Your task to perform on an android device: stop showing notifications on the lock screen Image 0: 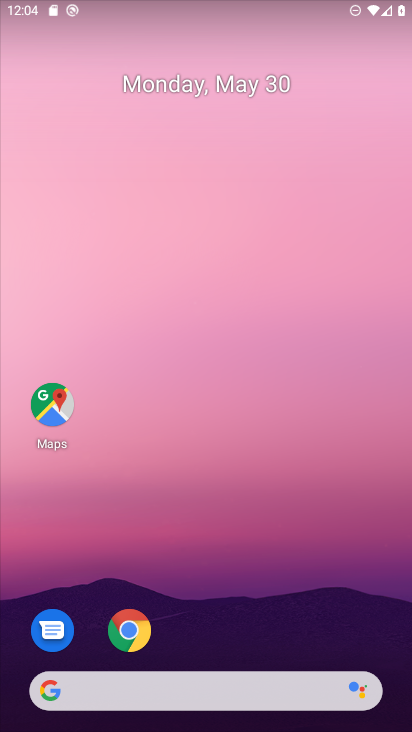
Step 0: drag from (215, 534) to (185, 324)
Your task to perform on an android device: stop showing notifications on the lock screen Image 1: 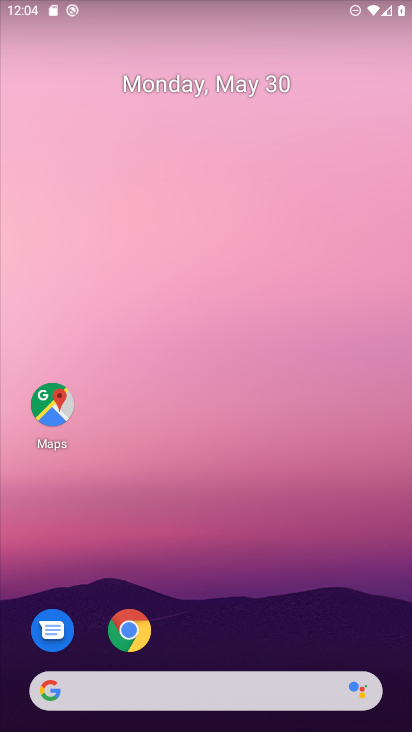
Step 1: drag from (276, 496) to (233, 36)
Your task to perform on an android device: stop showing notifications on the lock screen Image 2: 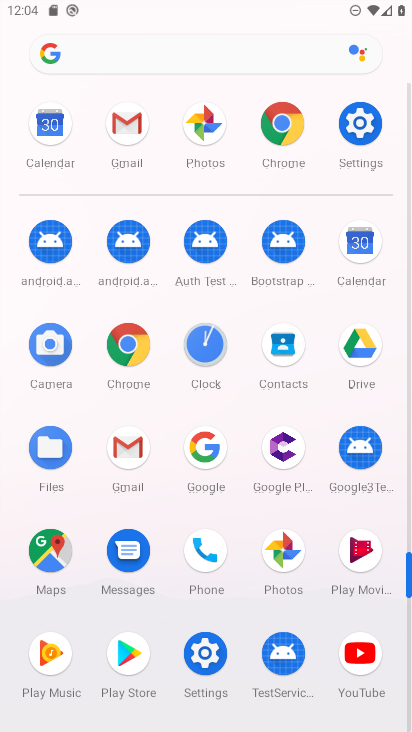
Step 2: click (369, 116)
Your task to perform on an android device: stop showing notifications on the lock screen Image 3: 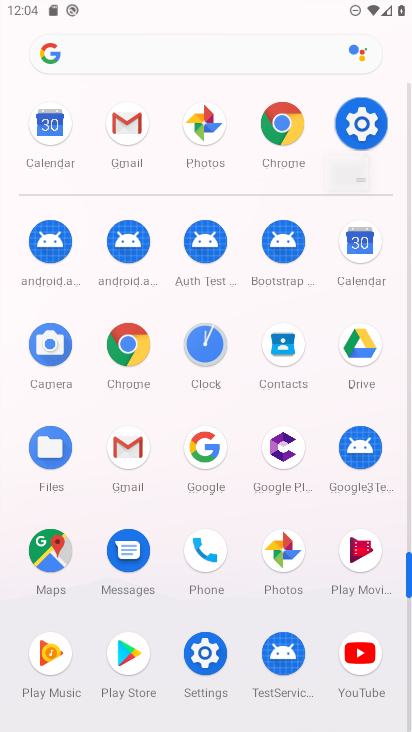
Step 3: click (336, 126)
Your task to perform on an android device: stop showing notifications on the lock screen Image 4: 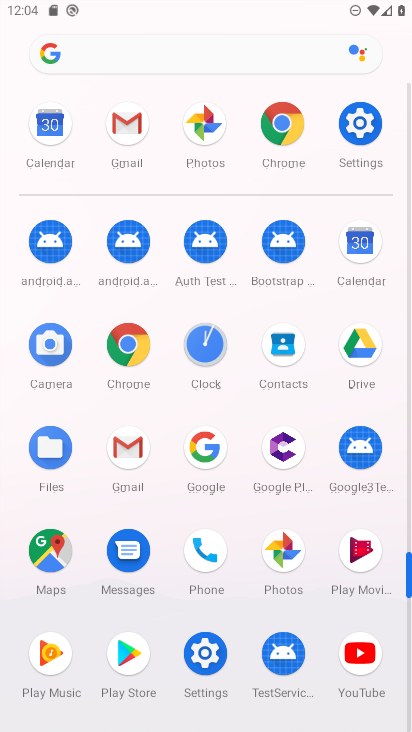
Step 4: click (357, 117)
Your task to perform on an android device: stop showing notifications on the lock screen Image 5: 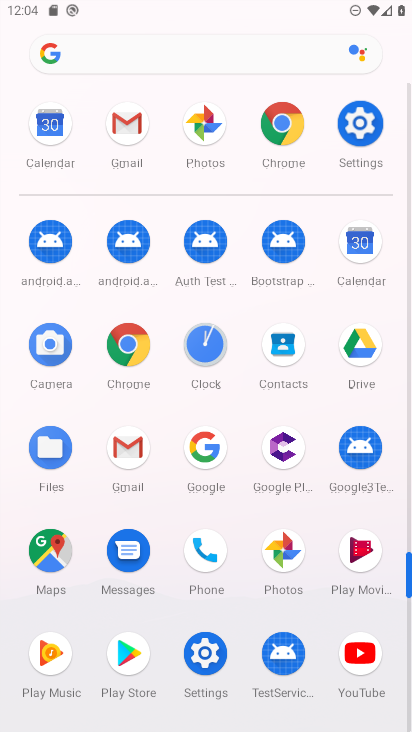
Step 5: click (359, 117)
Your task to perform on an android device: stop showing notifications on the lock screen Image 6: 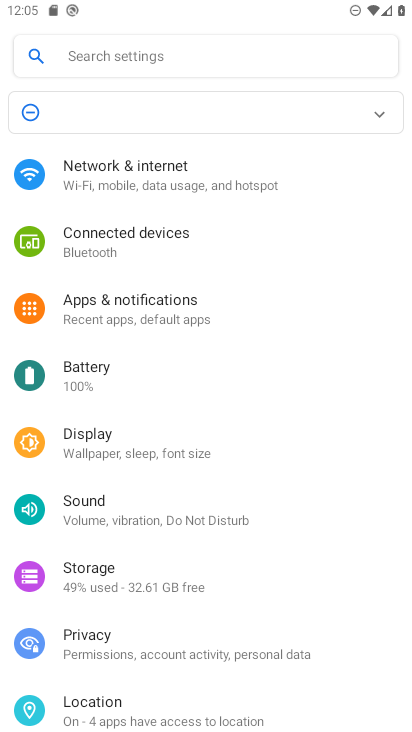
Step 6: click (366, 127)
Your task to perform on an android device: stop showing notifications on the lock screen Image 7: 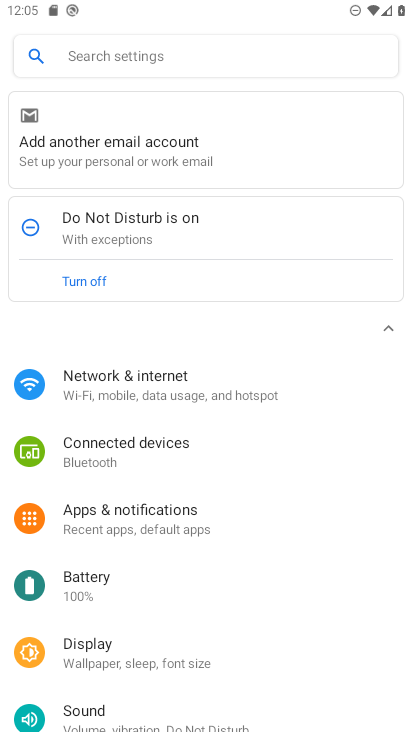
Step 7: click (123, 518)
Your task to perform on an android device: stop showing notifications on the lock screen Image 8: 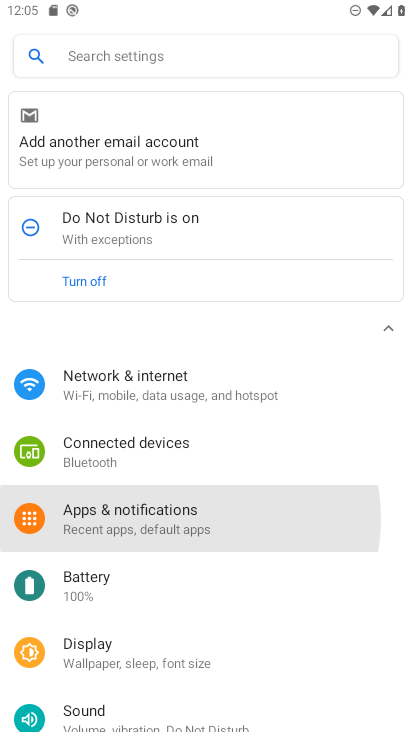
Step 8: click (121, 519)
Your task to perform on an android device: stop showing notifications on the lock screen Image 9: 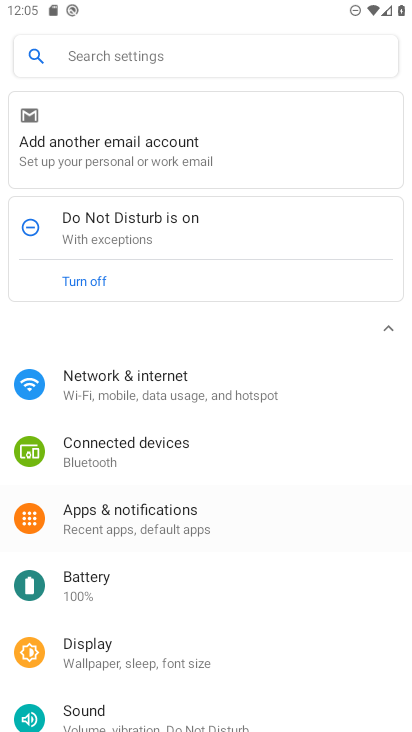
Step 9: click (121, 519)
Your task to perform on an android device: stop showing notifications on the lock screen Image 10: 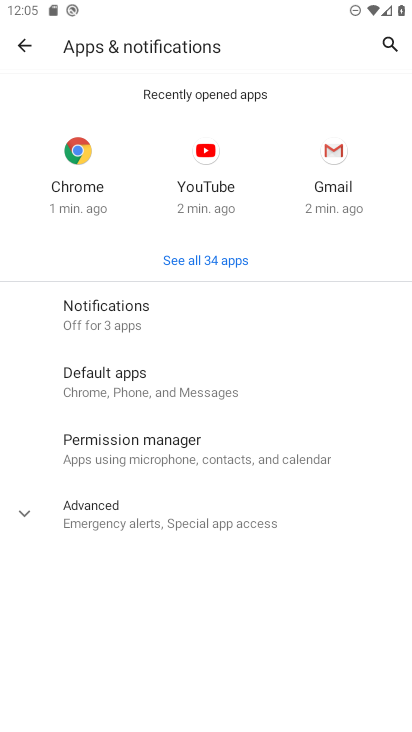
Step 10: click (93, 318)
Your task to perform on an android device: stop showing notifications on the lock screen Image 11: 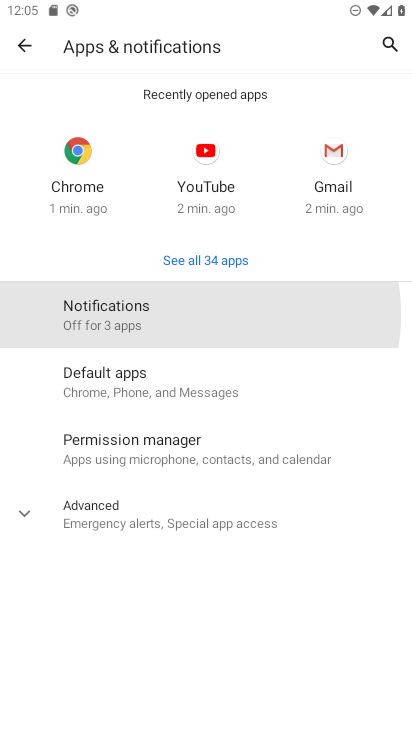
Step 11: click (93, 318)
Your task to perform on an android device: stop showing notifications on the lock screen Image 12: 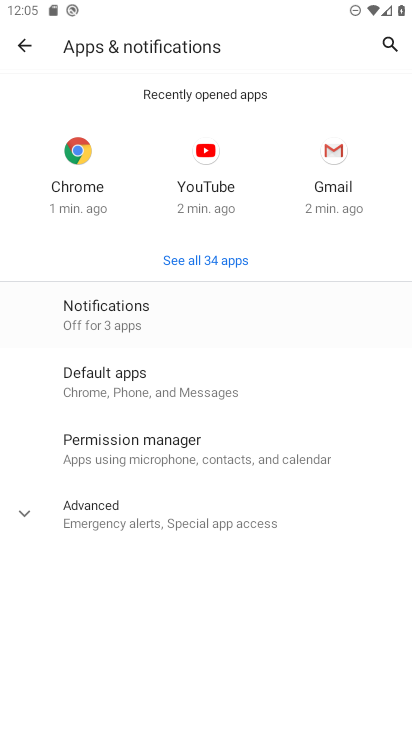
Step 12: click (93, 318)
Your task to perform on an android device: stop showing notifications on the lock screen Image 13: 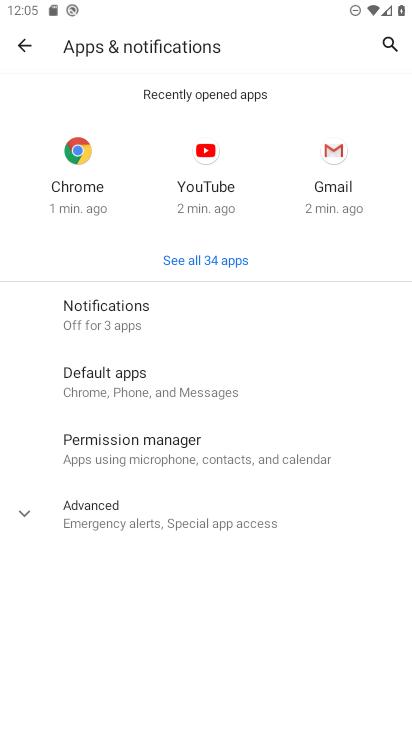
Step 13: click (94, 317)
Your task to perform on an android device: stop showing notifications on the lock screen Image 14: 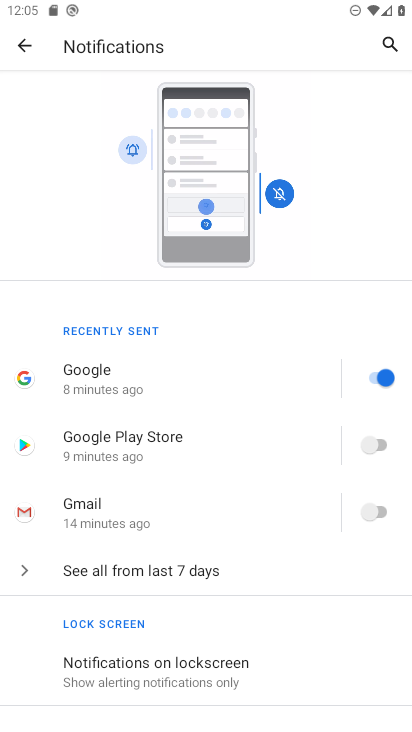
Step 14: click (144, 667)
Your task to perform on an android device: stop showing notifications on the lock screen Image 15: 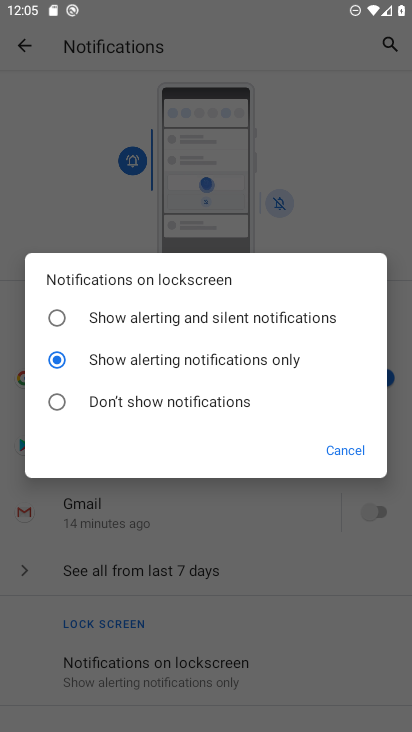
Step 15: click (48, 394)
Your task to perform on an android device: stop showing notifications on the lock screen Image 16: 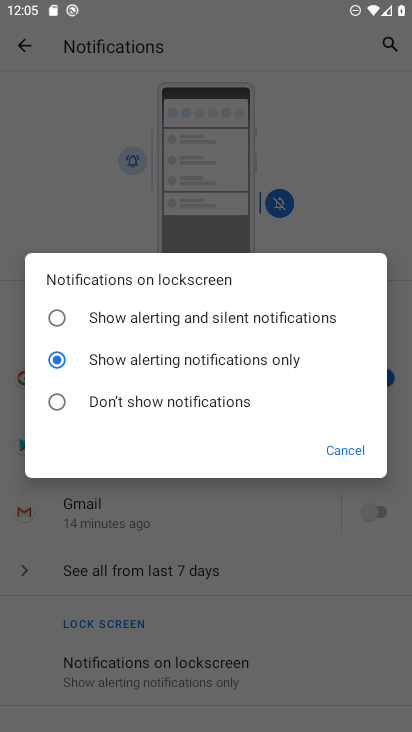
Step 16: click (54, 401)
Your task to perform on an android device: stop showing notifications on the lock screen Image 17: 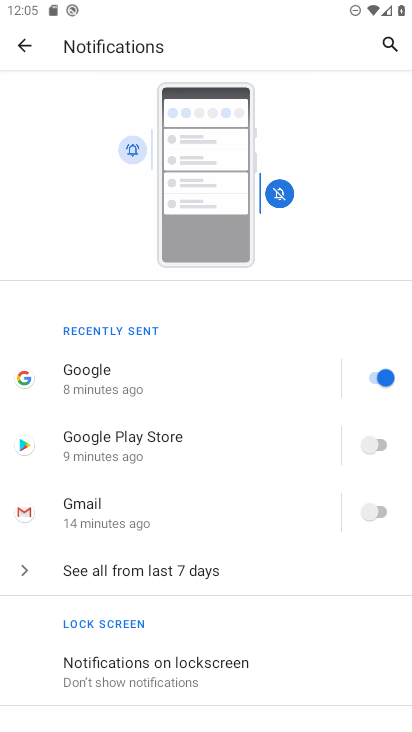
Step 17: task complete